Your task to perform on an android device: remove spam from my inbox in the gmail app Image 0: 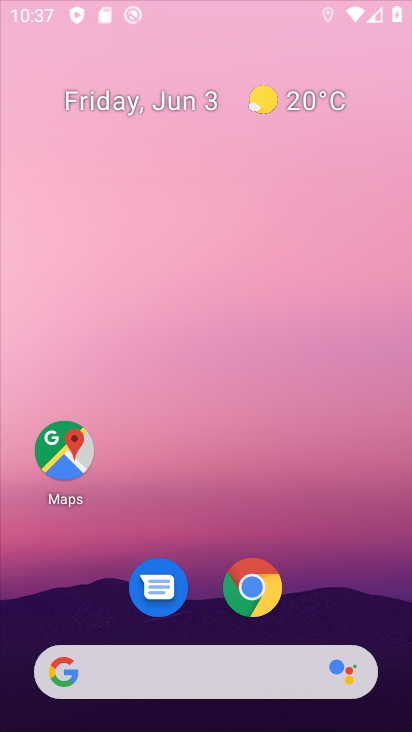
Step 0: click (221, 17)
Your task to perform on an android device: remove spam from my inbox in the gmail app Image 1: 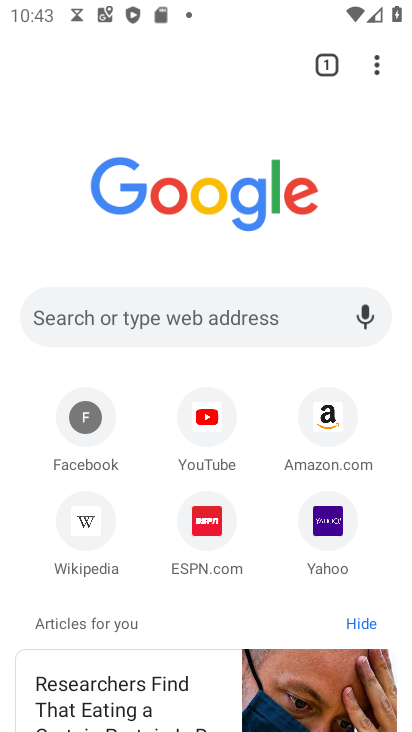
Step 1: press home button
Your task to perform on an android device: remove spam from my inbox in the gmail app Image 2: 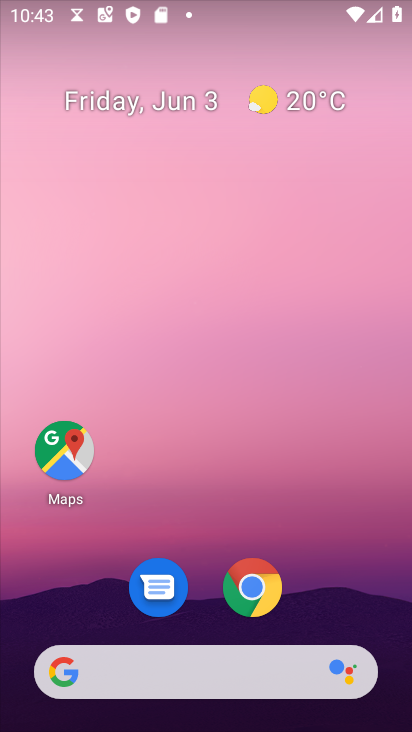
Step 2: drag from (341, 577) to (179, 31)
Your task to perform on an android device: remove spam from my inbox in the gmail app Image 3: 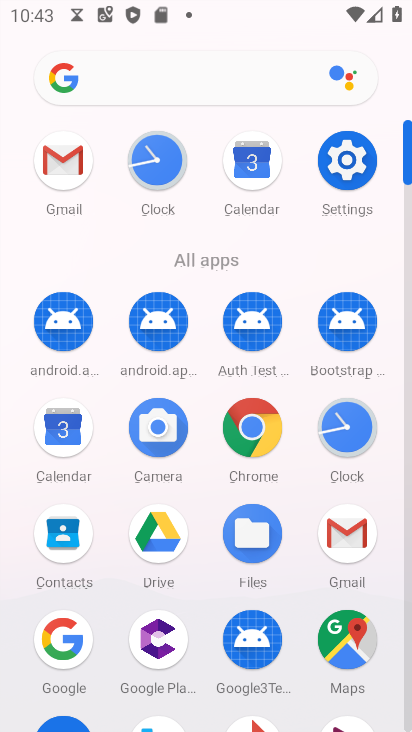
Step 3: click (361, 541)
Your task to perform on an android device: remove spam from my inbox in the gmail app Image 4: 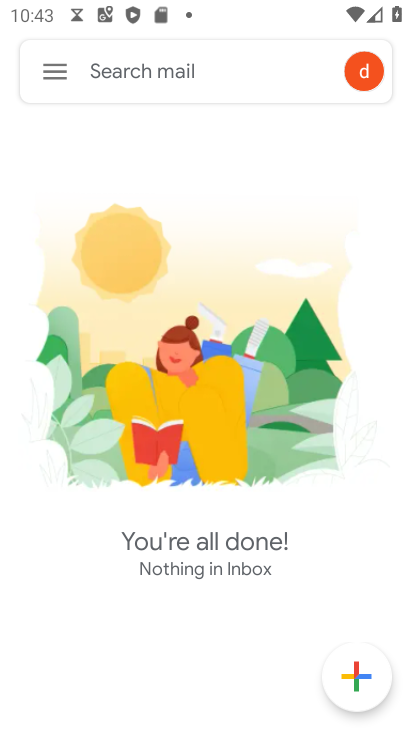
Step 4: click (59, 69)
Your task to perform on an android device: remove spam from my inbox in the gmail app Image 5: 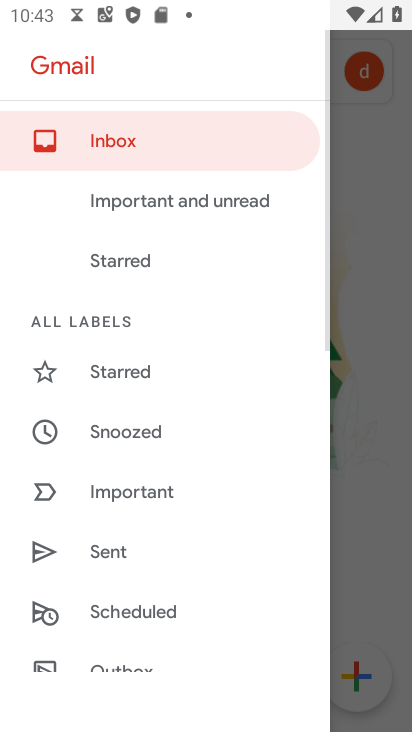
Step 5: drag from (201, 531) to (219, 1)
Your task to perform on an android device: remove spam from my inbox in the gmail app Image 6: 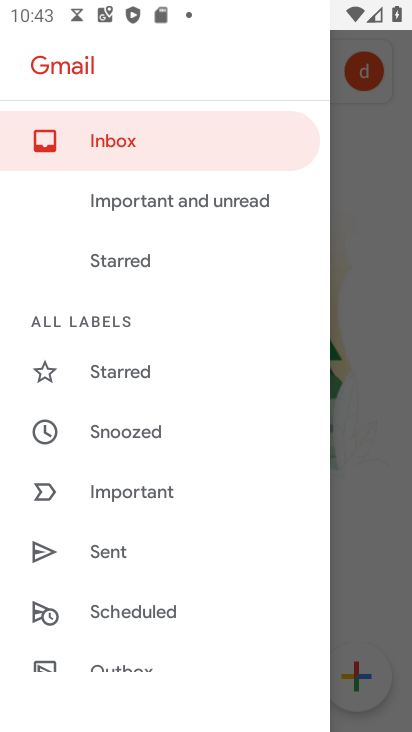
Step 6: drag from (137, 591) to (159, 88)
Your task to perform on an android device: remove spam from my inbox in the gmail app Image 7: 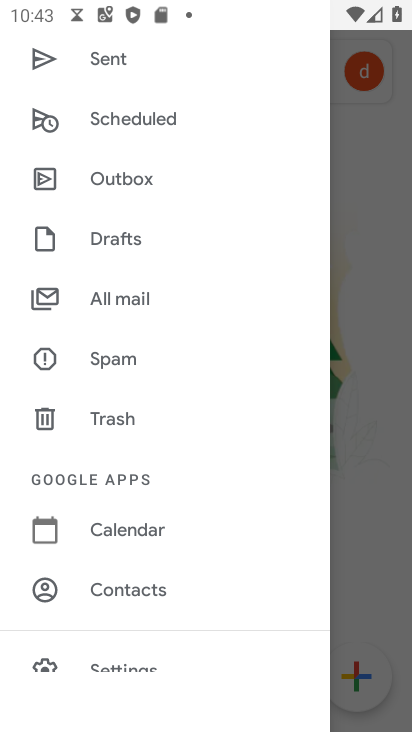
Step 7: click (133, 350)
Your task to perform on an android device: remove spam from my inbox in the gmail app Image 8: 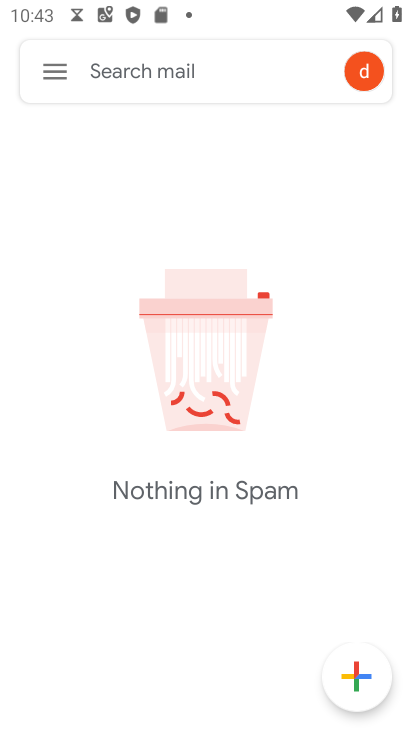
Step 8: task complete